Your task to perform on an android device: Go to Android settings Image 0: 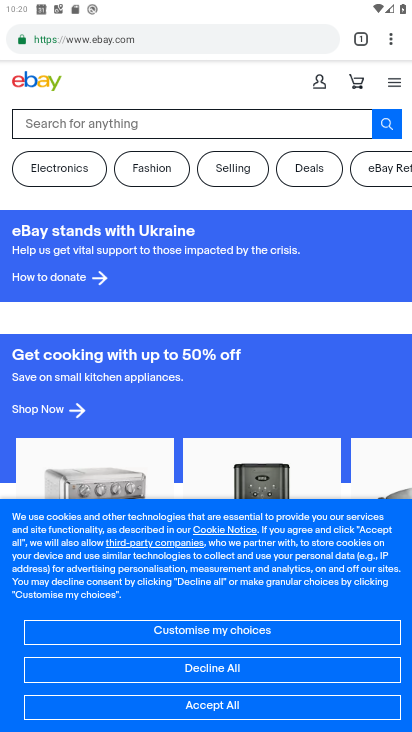
Step 0: press home button
Your task to perform on an android device: Go to Android settings Image 1: 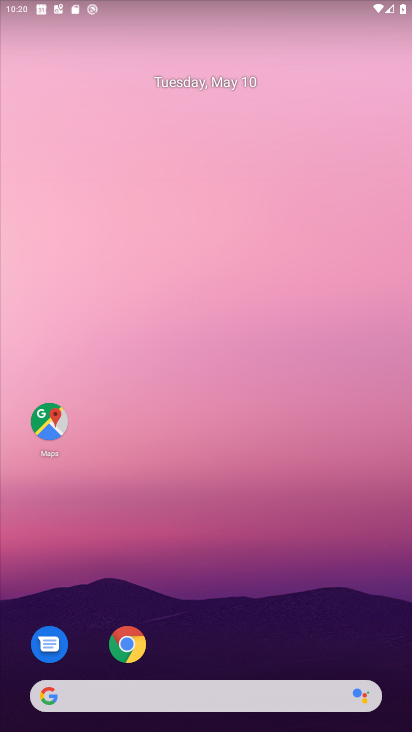
Step 1: drag from (284, 676) to (343, 244)
Your task to perform on an android device: Go to Android settings Image 2: 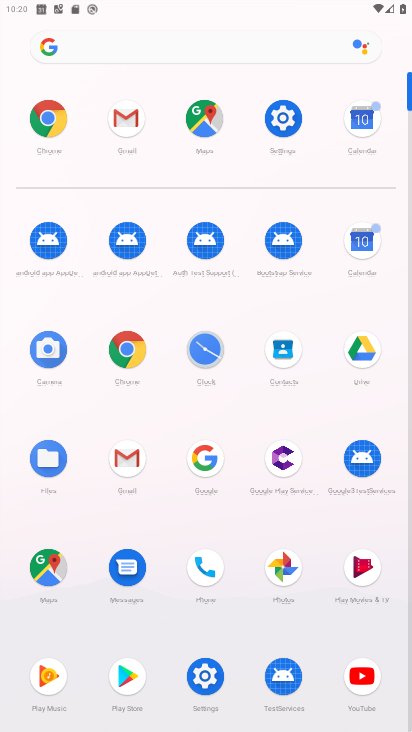
Step 2: click (280, 139)
Your task to perform on an android device: Go to Android settings Image 3: 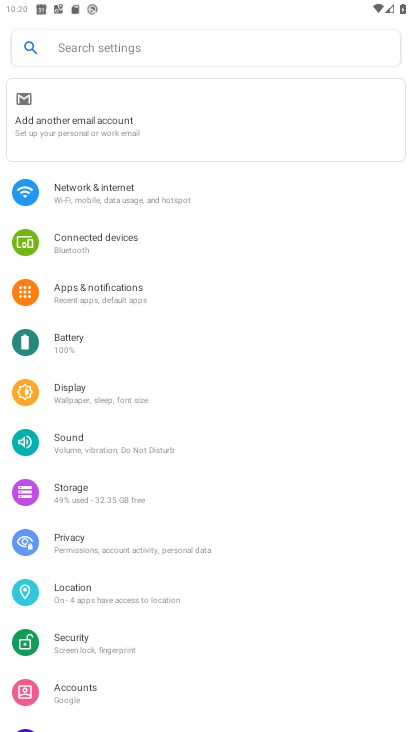
Step 3: drag from (285, 526) to (301, 228)
Your task to perform on an android device: Go to Android settings Image 4: 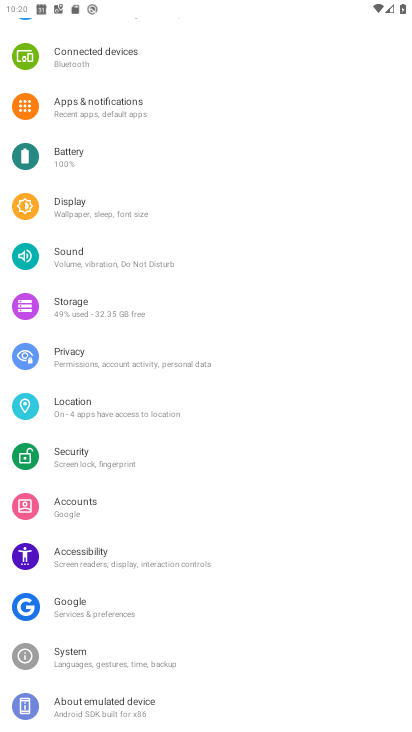
Step 4: drag from (268, 563) to (320, 51)
Your task to perform on an android device: Go to Android settings Image 5: 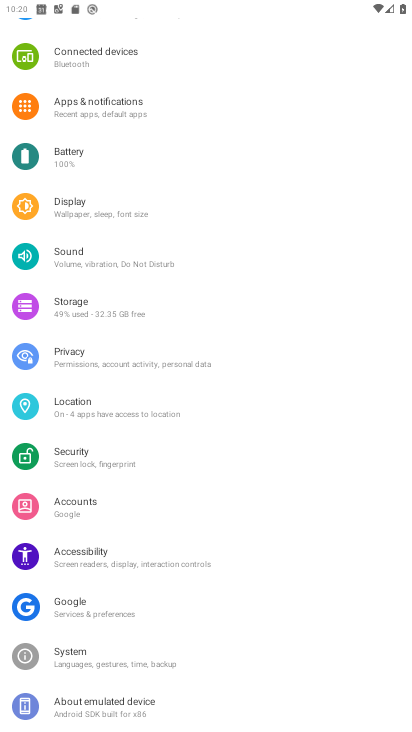
Step 5: drag from (309, 359) to (340, 20)
Your task to perform on an android device: Go to Android settings Image 6: 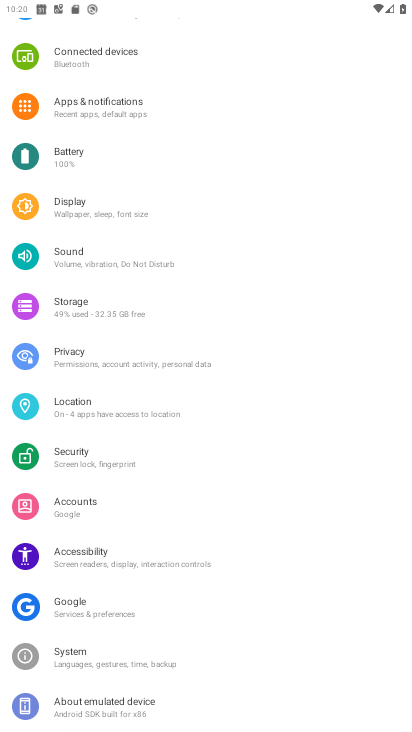
Step 6: drag from (330, 306) to (326, 13)
Your task to perform on an android device: Go to Android settings Image 7: 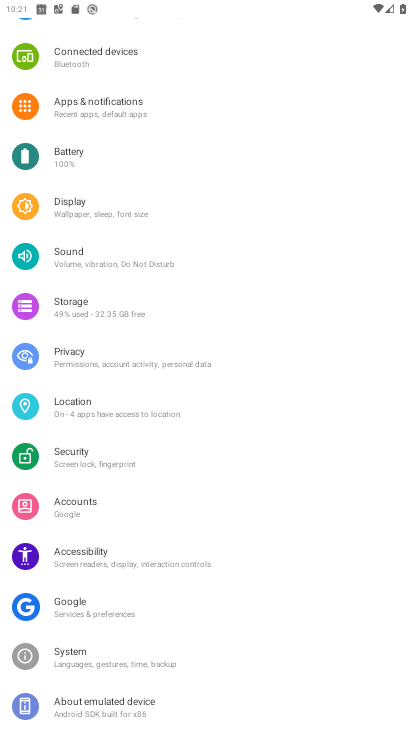
Step 7: drag from (293, 411) to (330, 48)
Your task to perform on an android device: Go to Android settings Image 8: 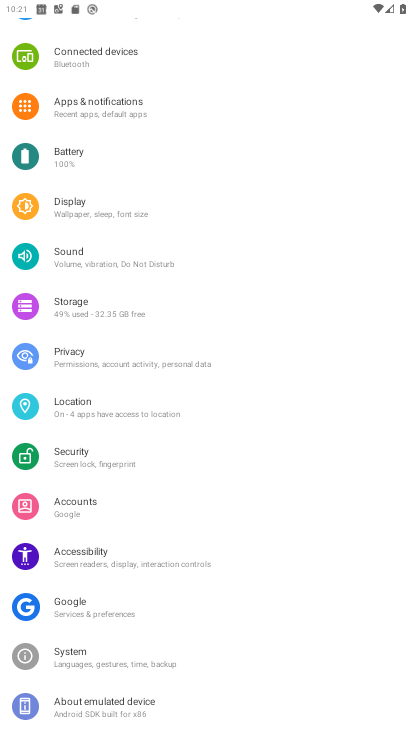
Step 8: click (182, 711)
Your task to perform on an android device: Go to Android settings Image 9: 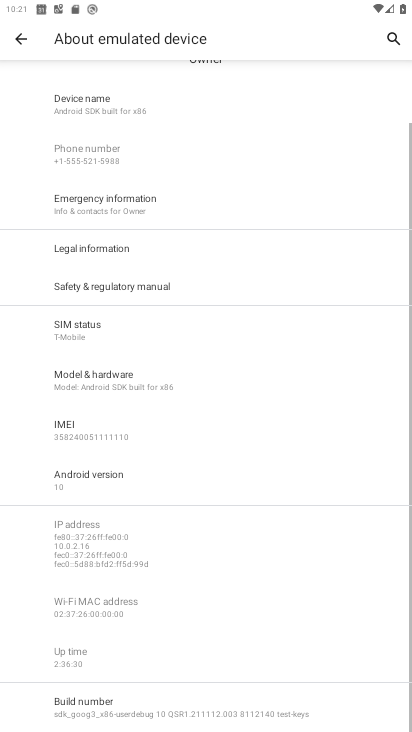
Step 9: click (136, 482)
Your task to perform on an android device: Go to Android settings Image 10: 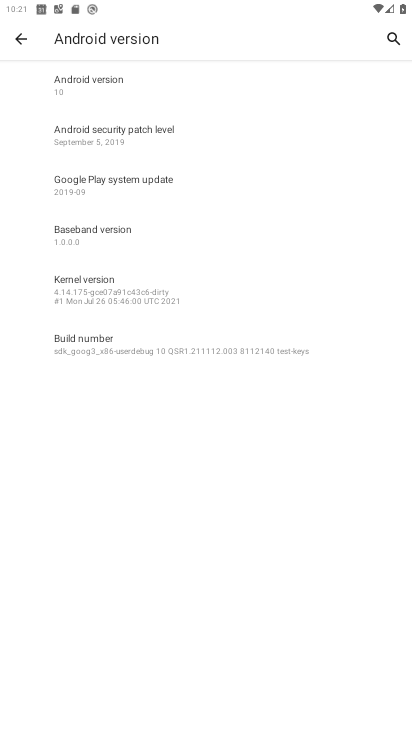
Step 10: task complete